Your task to perform on an android device: Open Yahoo.com Image 0: 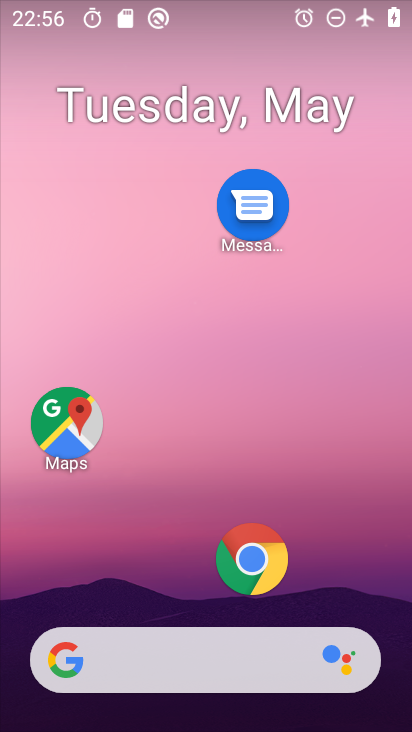
Step 0: click (224, 546)
Your task to perform on an android device: Open Yahoo.com Image 1: 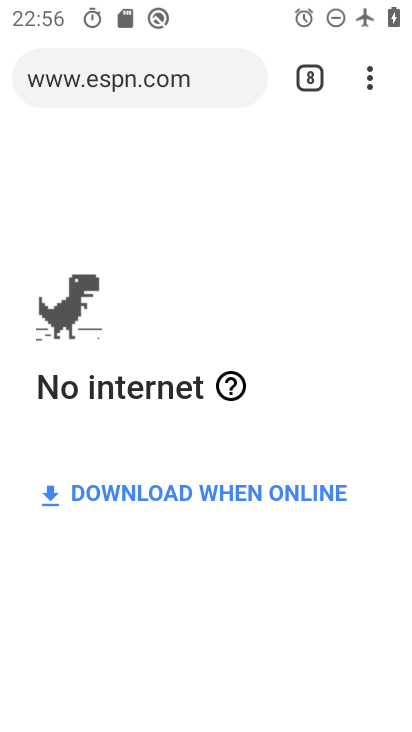
Step 1: click (318, 79)
Your task to perform on an android device: Open Yahoo.com Image 2: 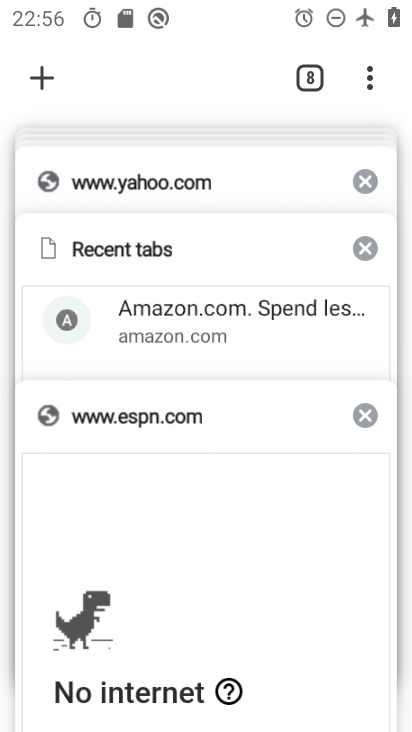
Step 2: click (157, 163)
Your task to perform on an android device: Open Yahoo.com Image 3: 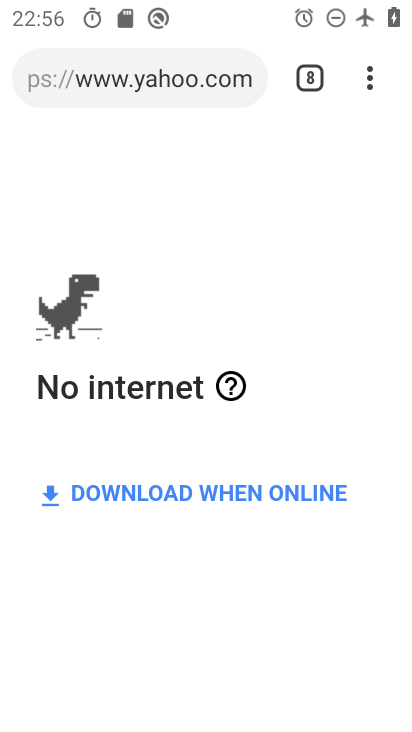
Step 3: task complete